Your task to perform on an android device: Open notification settings Image 0: 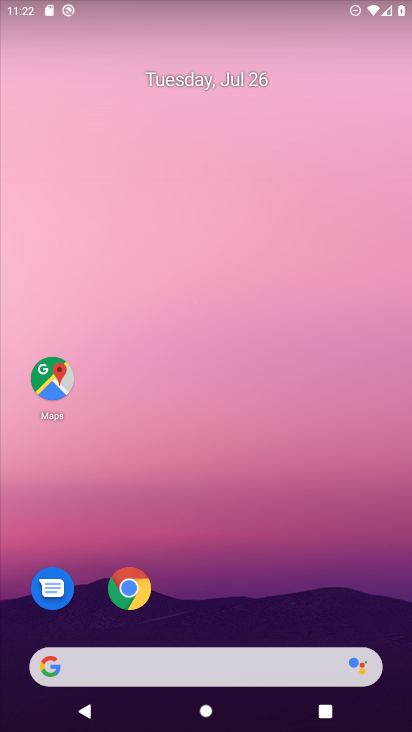
Step 0: drag from (243, 684) to (226, 258)
Your task to perform on an android device: Open notification settings Image 1: 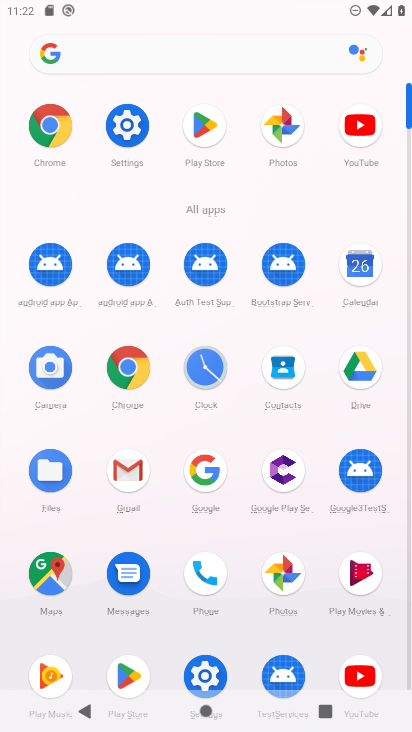
Step 1: drag from (119, 138) to (266, 644)
Your task to perform on an android device: Open notification settings Image 2: 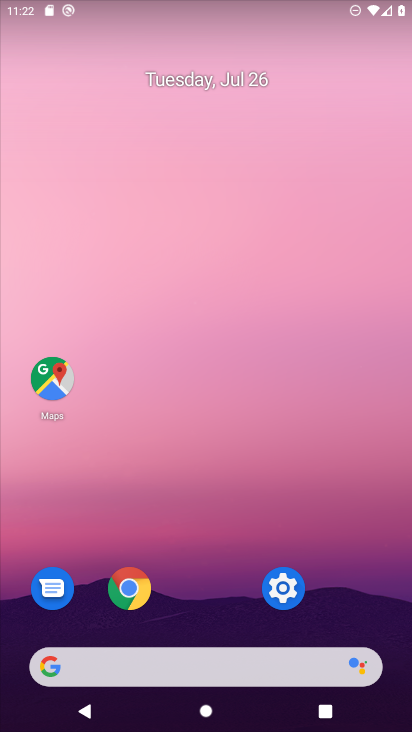
Step 2: click (290, 592)
Your task to perform on an android device: Open notification settings Image 3: 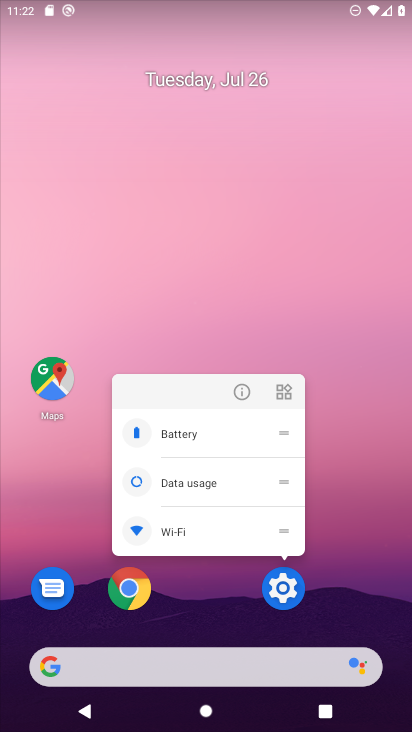
Step 3: click (283, 596)
Your task to perform on an android device: Open notification settings Image 4: 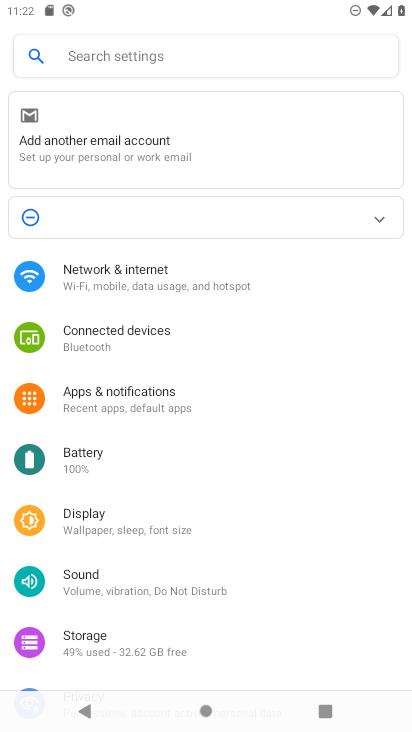
Step 4: click (146, 64)
Your task to perform on an android device: Open notification settings Image 5: 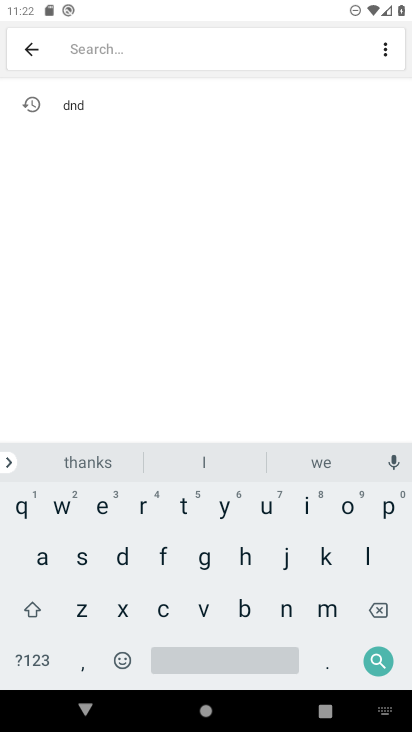
Step 5: click (284, 610)
Your task to perform on an android device: Open notification settings Image 6: 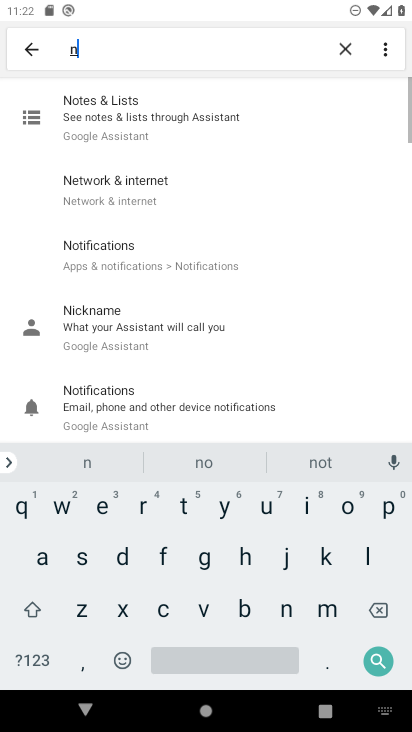
Step 6: click (349, 504)
Your task to perform on an android device: Open notification settings Image 7: 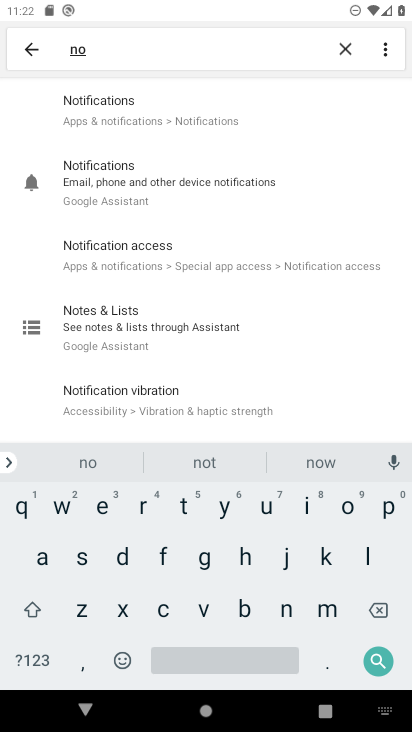
Step 7: click (139, 112)
Your task to perform on an android device: Open notification settings Image 8: 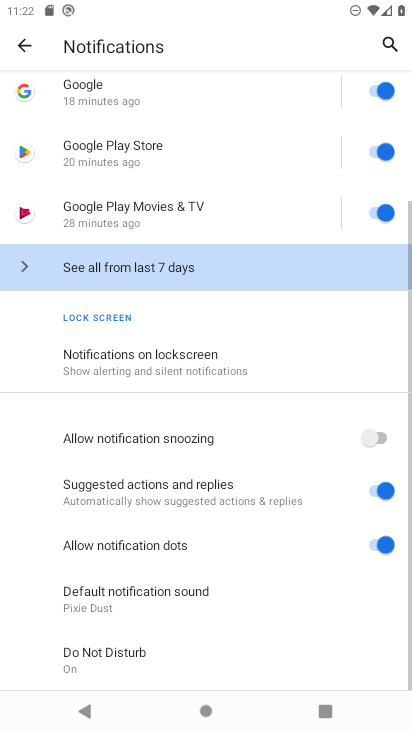
Step 8: click (126, 344)
Your task to perform on an android device: Open notification settings Image 9: 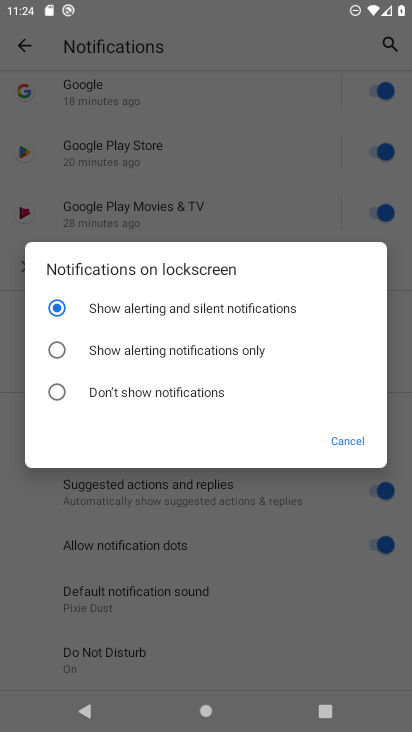
Step 9: task complete